Your task to perform on an android device: Open calendar and show me the third week of next month Image 0: 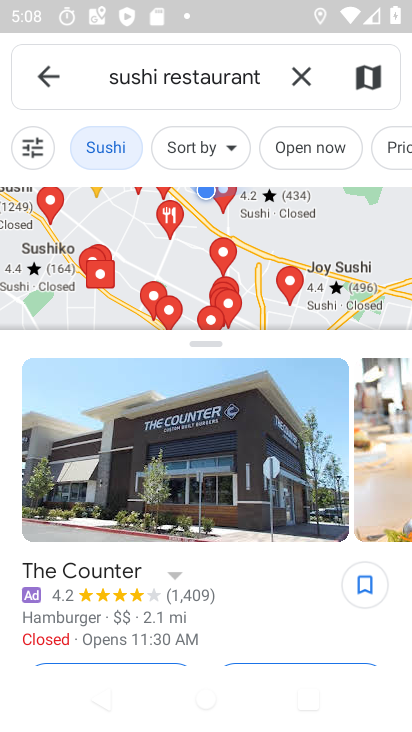
Step 0: press home button
Your task to perform on an android device: Open calendar and show me the third week of next month Image 1: 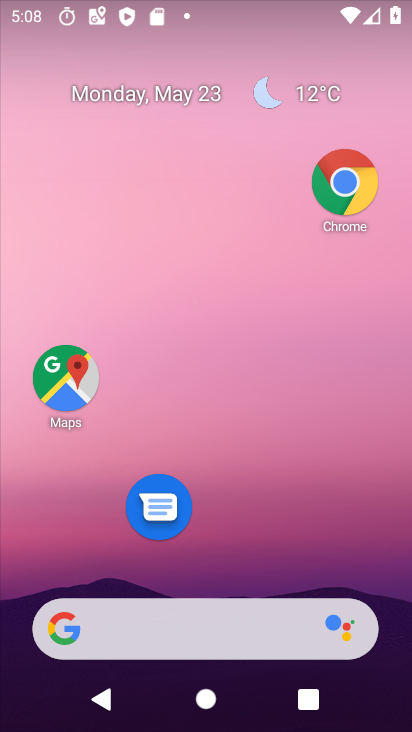
Step 1: click (155, 108)
Your task to perform on an android device: Open calendar and show me the third week of next month Image 2: 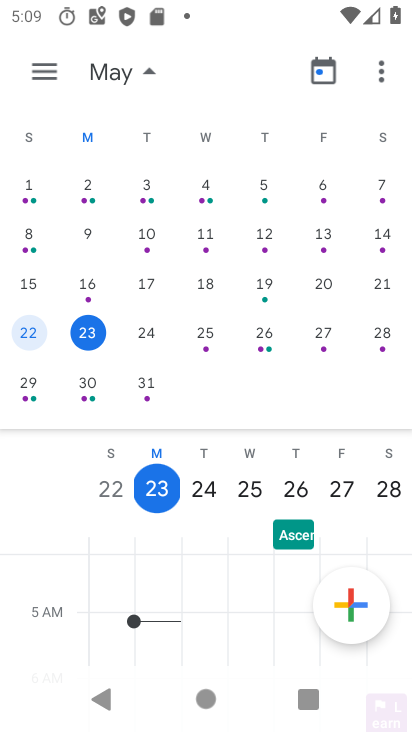
Step 2: drag from (319, 400) to (75, 312)
Your task to perform on an android device: Open calendar and show me the third week of next month Image 3: 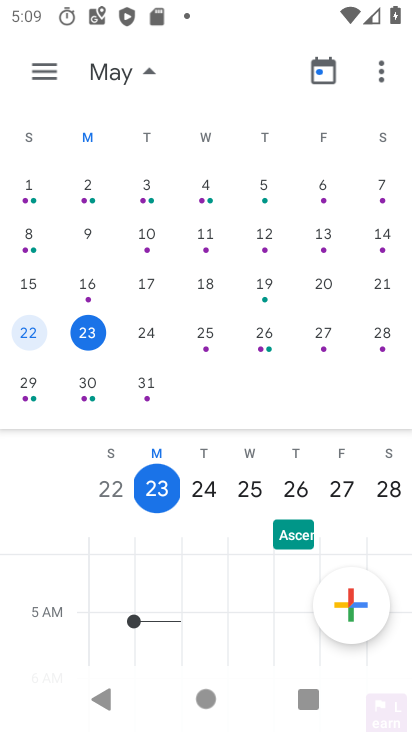
Step 3: drag from (360, 392) to (0, 338)
Your task to perform on an android device: Open calendar and show me the third week of next month Image 4: 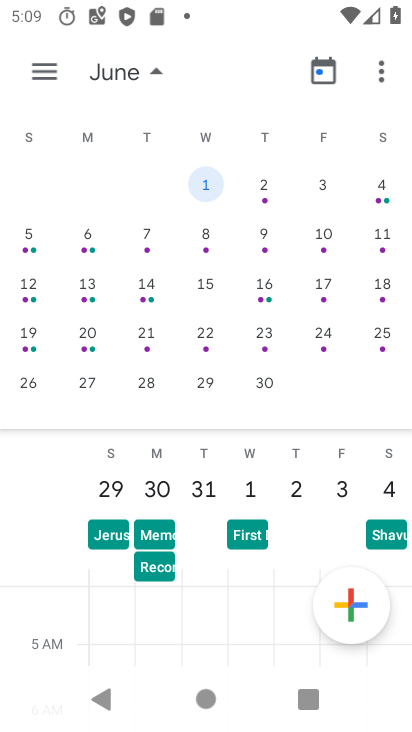
Step 4: click (209, 281)
Your task to perform on an android device: Open calendar and show me the third week of next month Image 5: 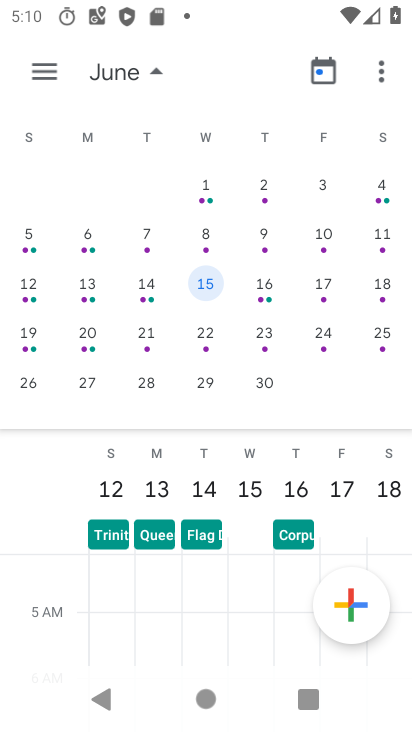
Step 5: task complete